Your task to perform on an android device: see sites visited before in the chrome app Image 0: 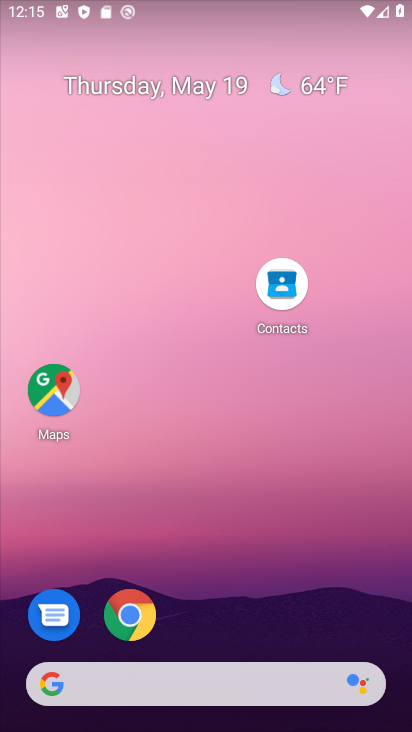
Step 0: drag from (212, 643) to (222, 262)
Your task to perform on an android device: see sites visited before in the chrome app Image 1: 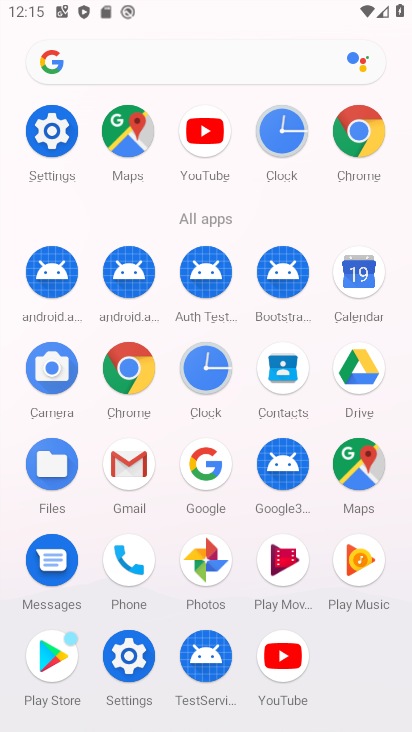
Step 1: click (344, 151)
Your task to perform on an android device: see sites visited before in the chrome app Image 2: 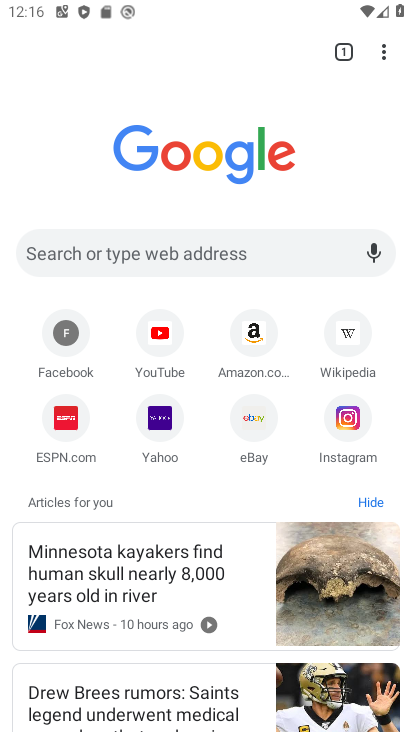
Step 2: click (382, 51)
Your task to perform on an android device: see sites visited before in the chrome app Image 3: 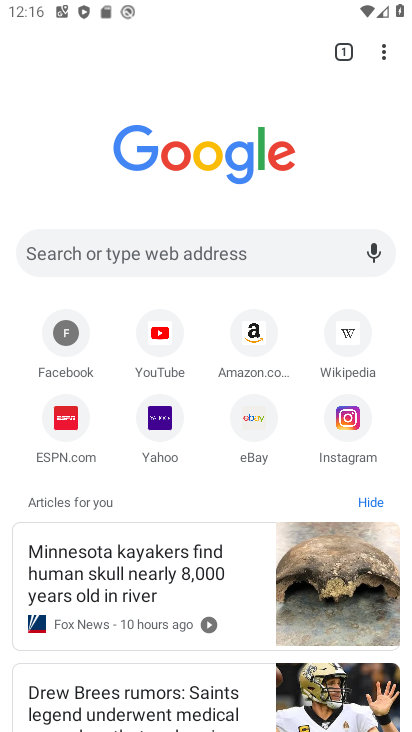
Step 3: click (390, 45)
Your task to perform on an android device: see sites visited before in the chrome app Image 4: 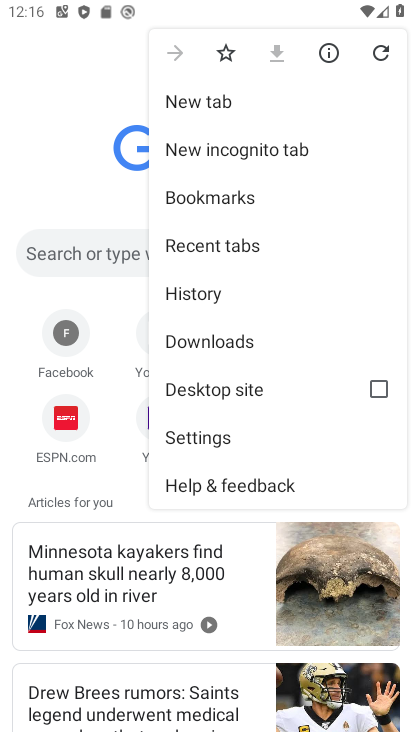
Step 4: click (223, 293)
Your task to perform on an android device: see sites visited before in the chrome app Image 5: 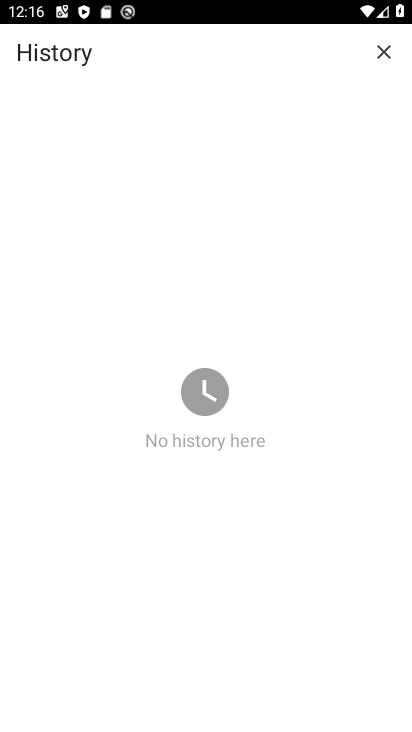
Step 5: task complete